Your task to perform on an android device: star an email in the gmail app Image 0: 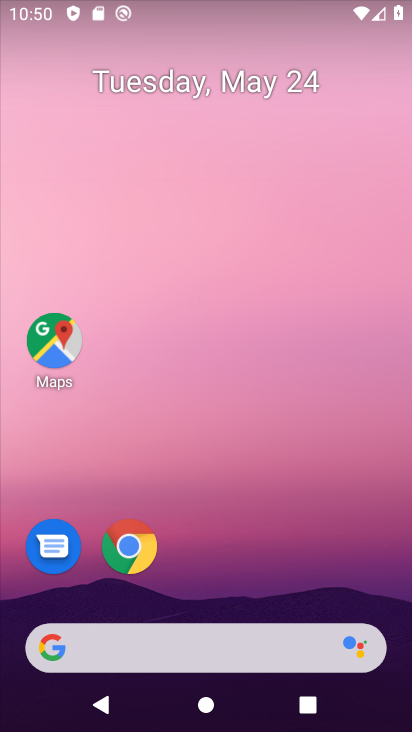
Step 0: drag from (309, 602) to (342, 63)
Your task to perform on an android device: star an email in the gmail app Image 1: 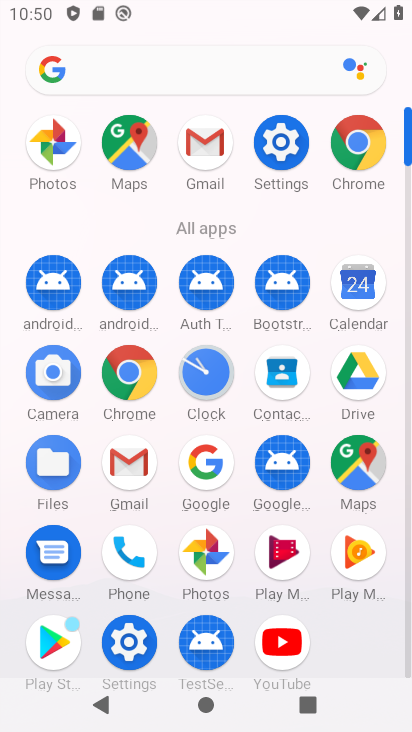
Step 1: drag from (376, 646) to (342, 489)
Your task to perform on an android device: star an email in the gmail app Image 2: 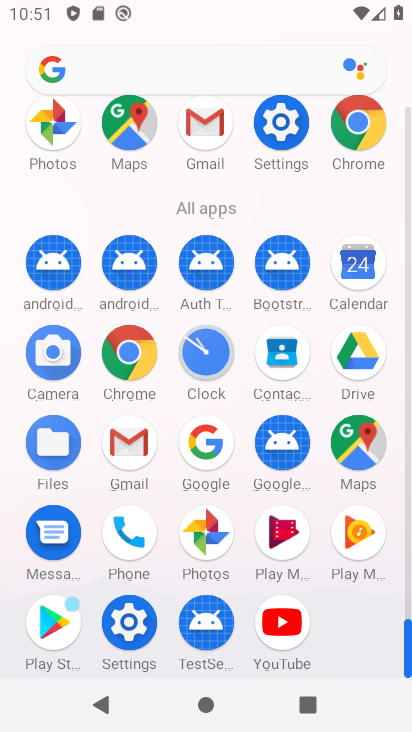
Step 2: click (123, 438)
Your task to perform on an android device: star an email in the gmail app Image 3: 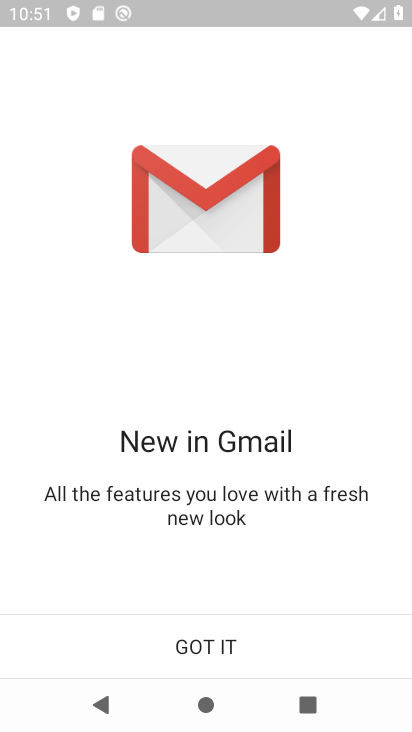
Step 3: click (216, 644)
Your task to perform on an android device: star an email in the gmail app Image 4: 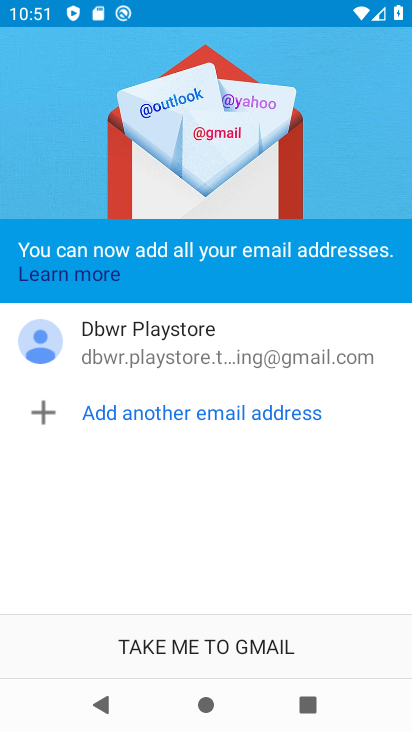
Step 4: click (263, 652)
Your task to perform on an android device: star an email in the gmail app Image 5: 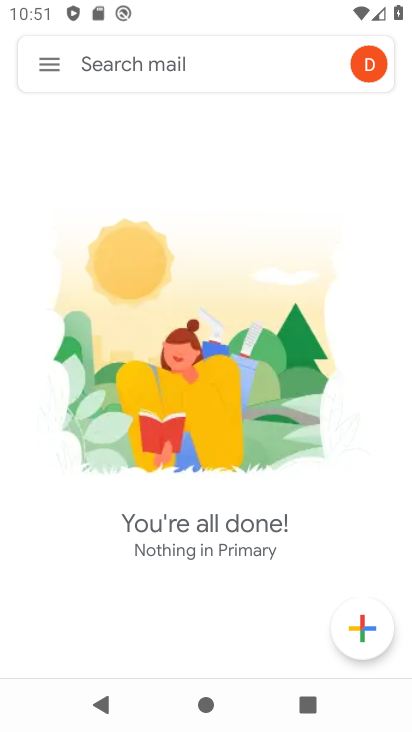
Step 5: task complete